Your task to perform on an android device: Go to Yahoo.com Image 0: 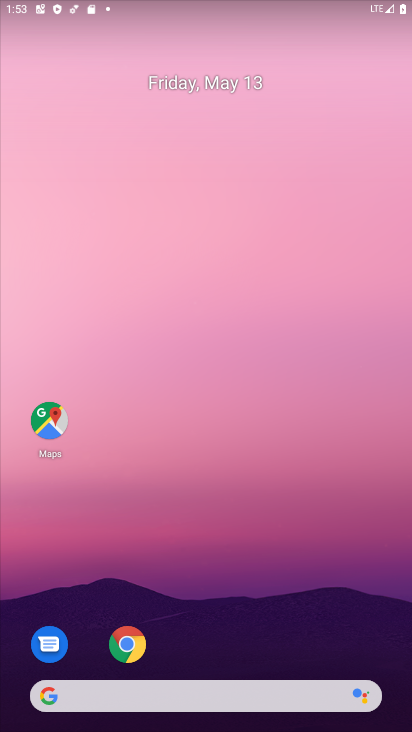
Step 0: drag from (341, 625) to (166, 36)
Your task to perform on an android device: Go to Yahoo.com Image 1: 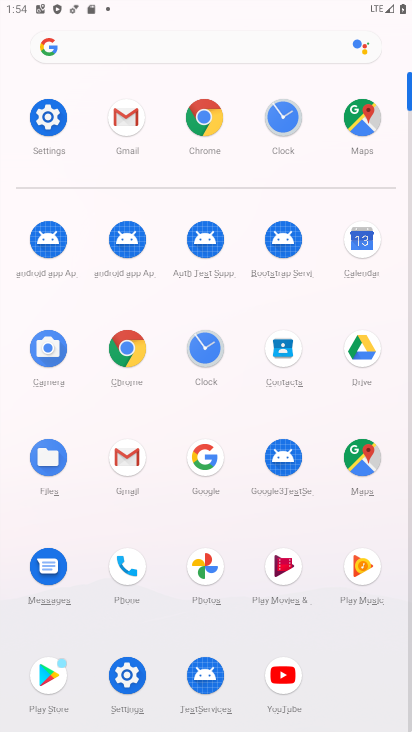
Step 1: click (127, 354)
Your task to perform on an android device: Go to Yahoo.com Image 2: 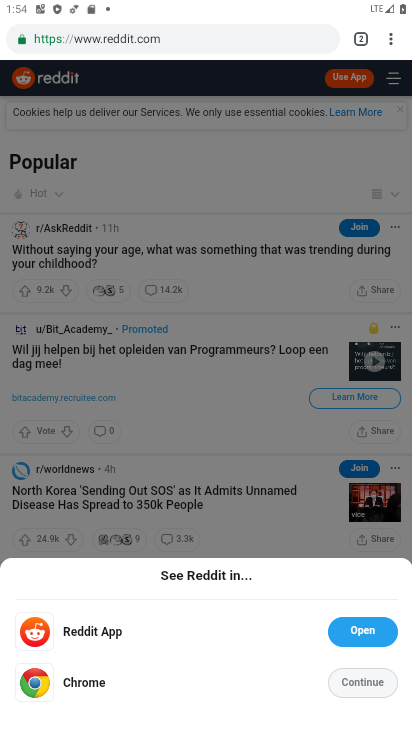
Step 2: press back button
Your task to perform on an android device: Go to Yahoo.com Image 3: 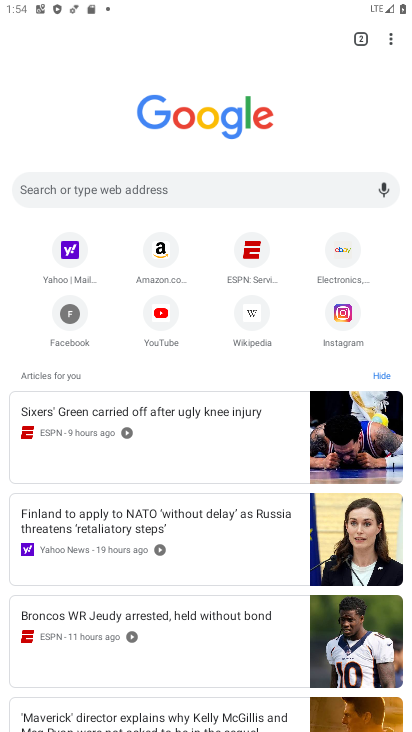
Step 3: click (59, 257)
Your task to perform on an android device: Go to Yahoo.com Image 4: 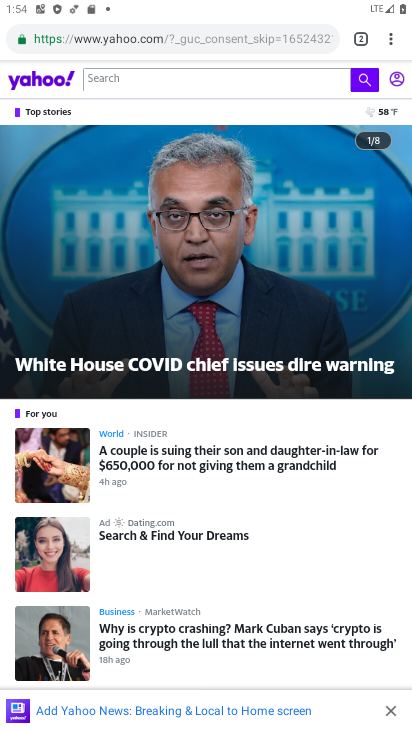
Step 4: task complete